Your task to perform on an android device: visit the assistant section in the google photos Image 0: 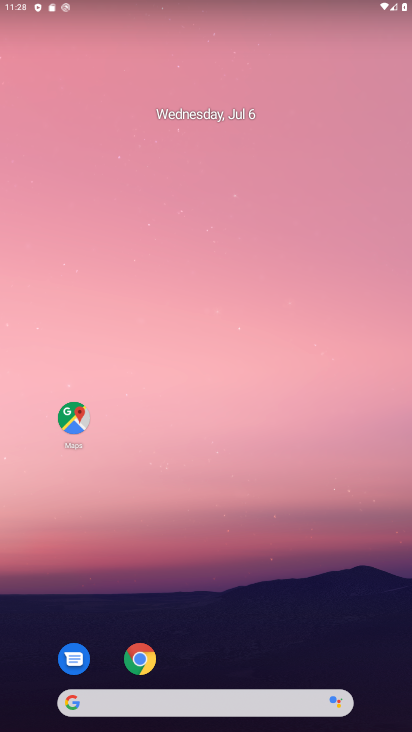
Step 0: drag from (205, 262) to (235, 55)
Your task to perform on an android device: visit the assistant section in the google photos Image 1: 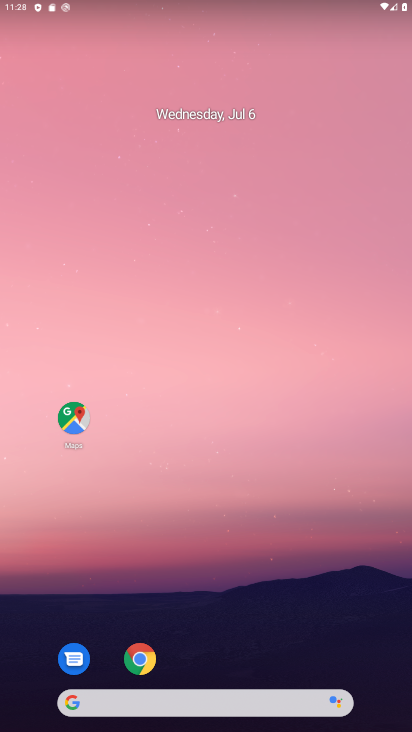
Step 1: drag from (188, 616) to (245, 97)
Your task to perform on an android device: visit the assistant section in the google photos Image 2: 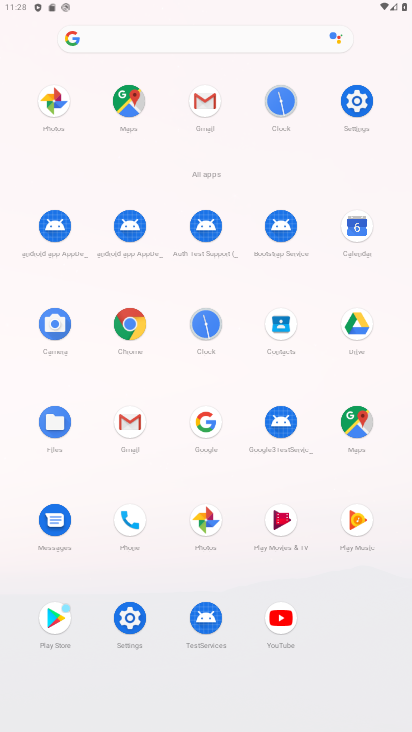
Step 2: click (211, 515)
Your task to perform on an android device: visit the assistant section in the google photos Image 3: 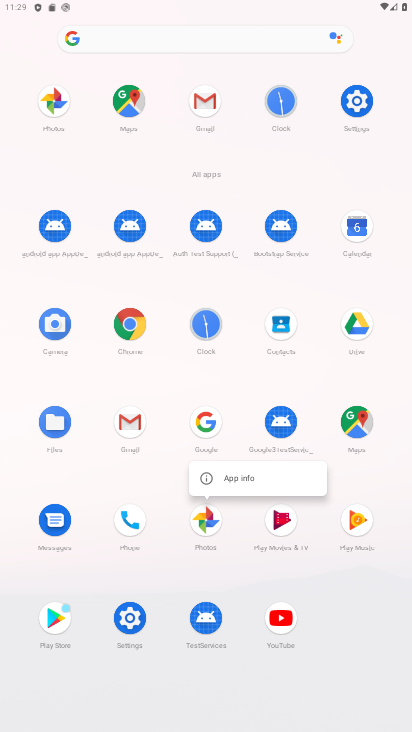
Step 3: click (210, 517)
Your task to perform on an android device: visit the assistant section in the google photos Image 4: 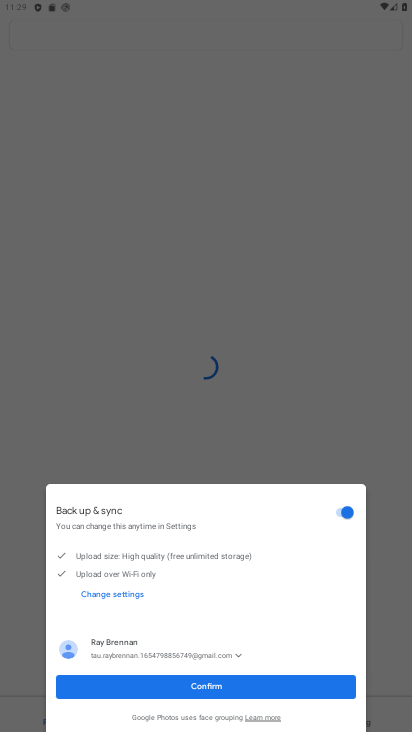
Step 4: click (261, 708)
Your task to perform on an android device: visit the assistant section in the google photos Image 5: 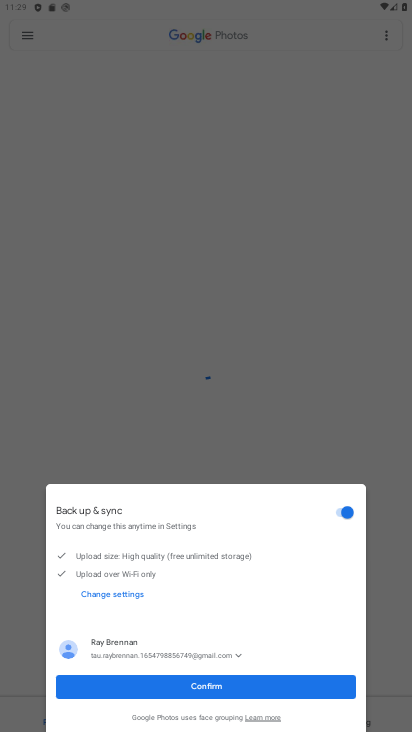
Step 5: click (254, 686)
Your task to perform on an android device: visit the assistant section in the google photos Image 6: 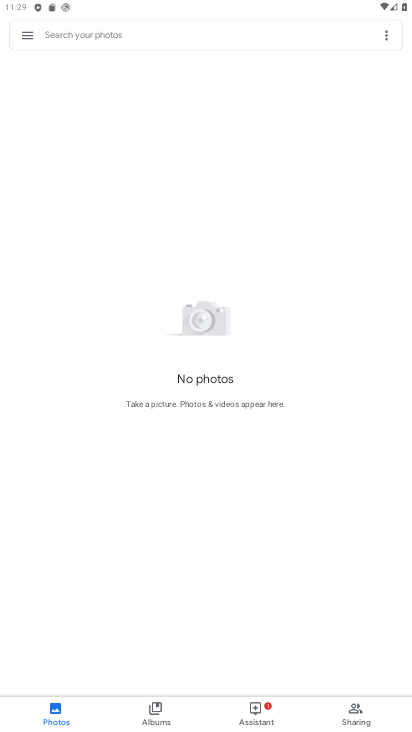
Step 6: click (259, 716)
Your task to perform on an android device: visit the assistant section in the google photos Image 7: 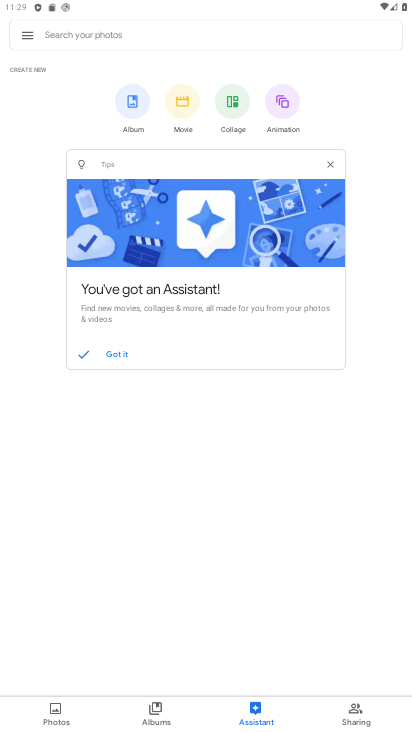
Step 7: task complete